Your task to perform on an android device: Toggle the flashlight Image 0: 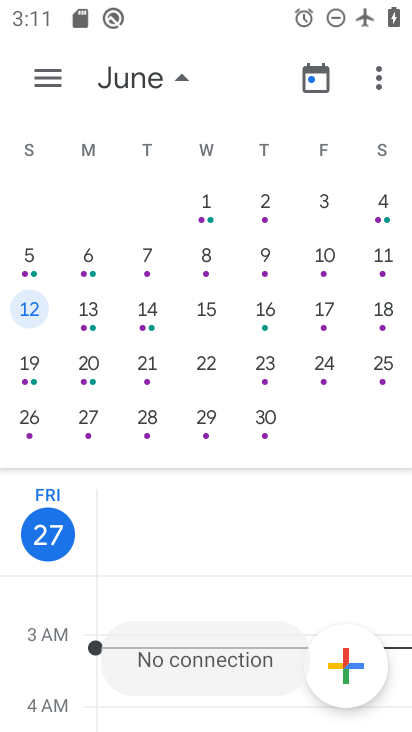
Step 0: press home button
Your task to perform on an android device: Toggle the flashlight Image 1: 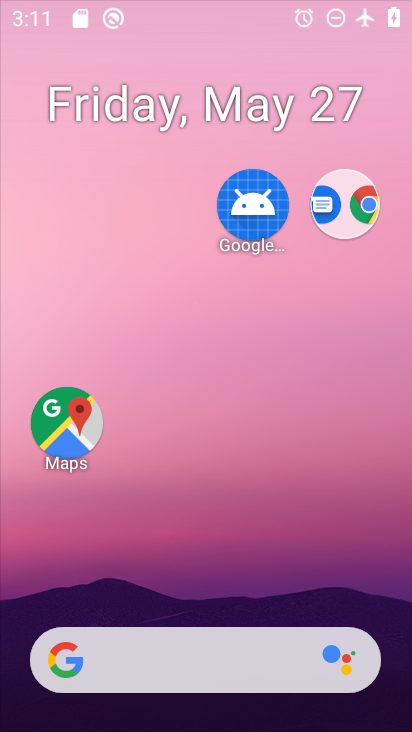
Step 1: task complete